Your task to perform on an android device: turn off translation in the chrome app Image 0: 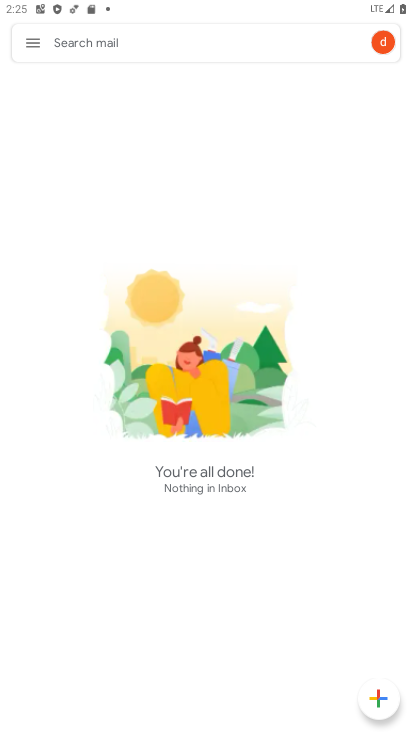
Step 0: press home button
Your task to perform on an android device: turn off translation in the chrome app Image 1: 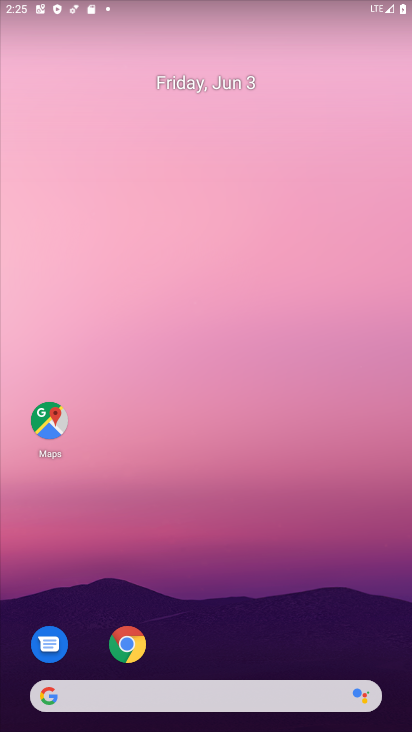
Step 1: click (137, 647)
Your task to perform on an android device: turn off translation in the chrome app Image 2: 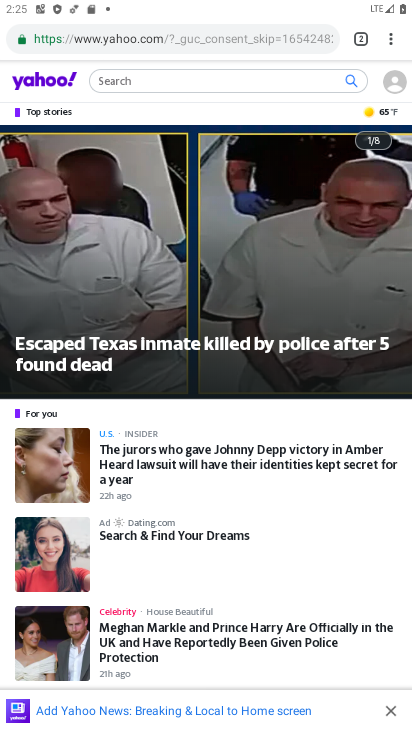
Step 2: click (391, 29)
Your task to perform on an android device: turn off translation in the chrome app Image 3: 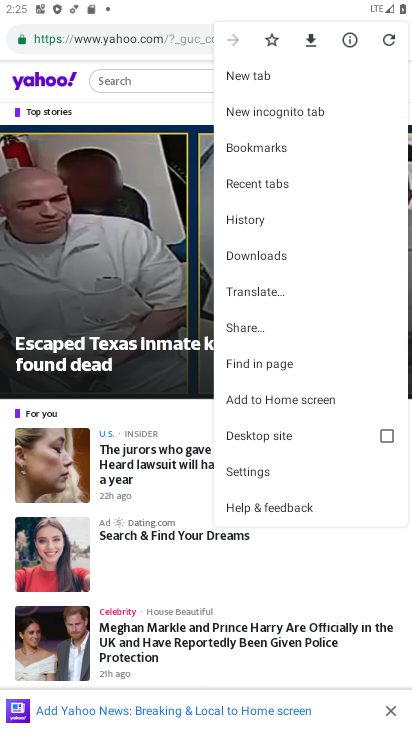
Step 3: click (291, 464)
Your task to perform on an android device: turn off translation in the chrome app Image 4: 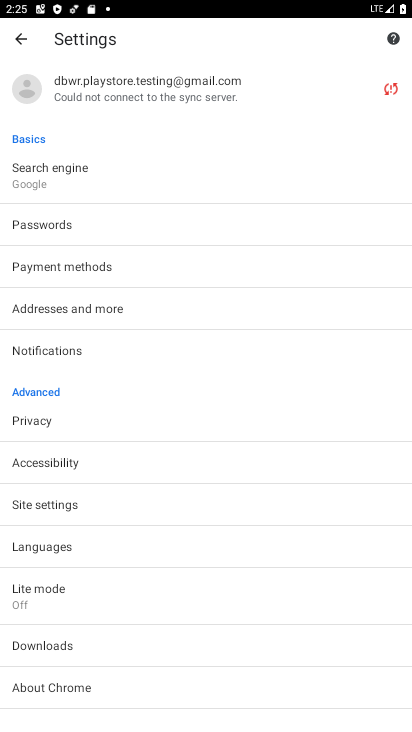
Step 4: click (105, 535)
Your task to perform on an android device: turn off translation in the chrome app Image 5: 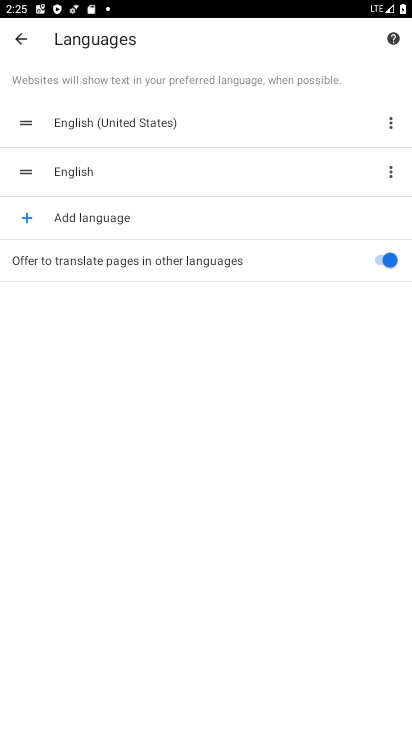
Step 5: click (380, 256)
Your task to perform on an android device: turn off translation in the chrome app Image 6: 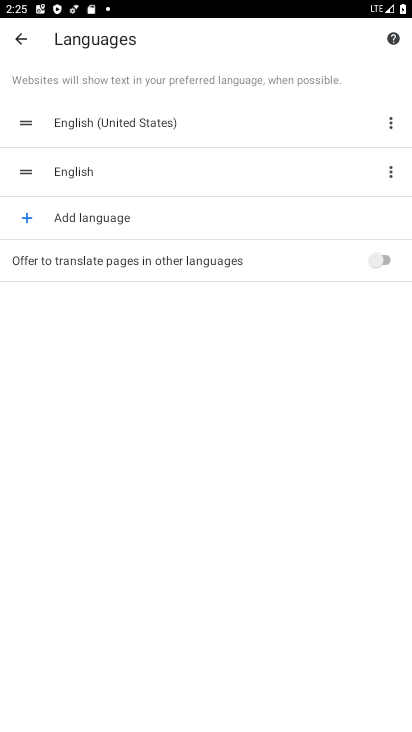
Step 6: task complete